Your task to perform on an android device: Search for Mexican restaurants on Maps Image 0: 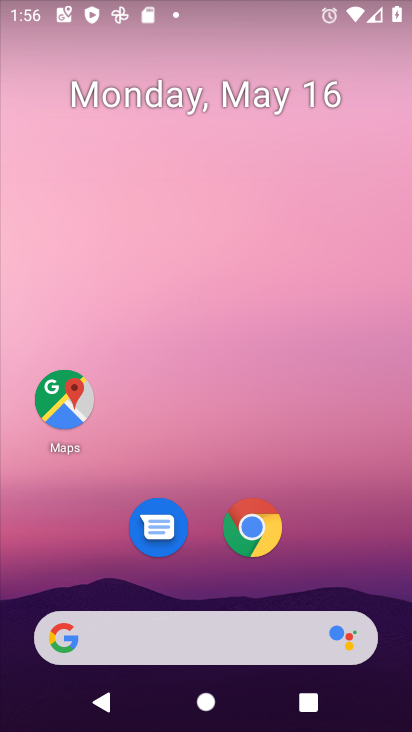
Step 0: click (48, 416)
Your task to perform on an android device: Search for Mexican restaurants on Maps Image 1: 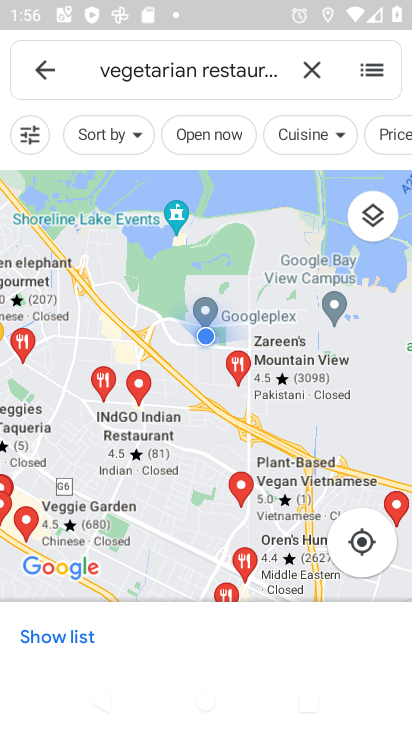
Step 1: click (315, 71)
Your task to perform on an android device: Search for Mexican restaurants on Maps Image 2: 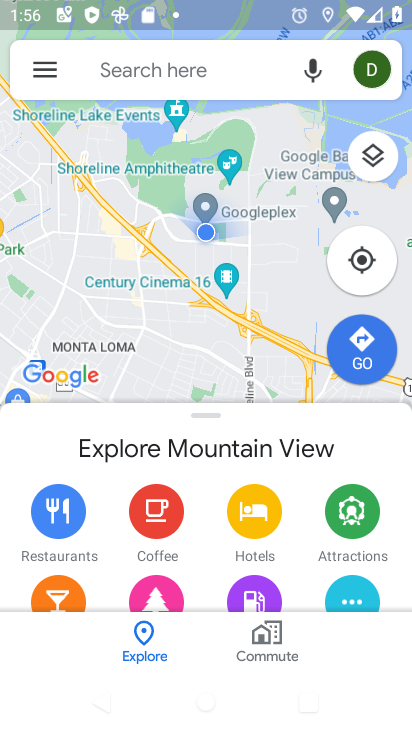
Step 2: click (254, 67)
Your task to perform on an android device: Search for Mexican restaurants on Maps Image 3: 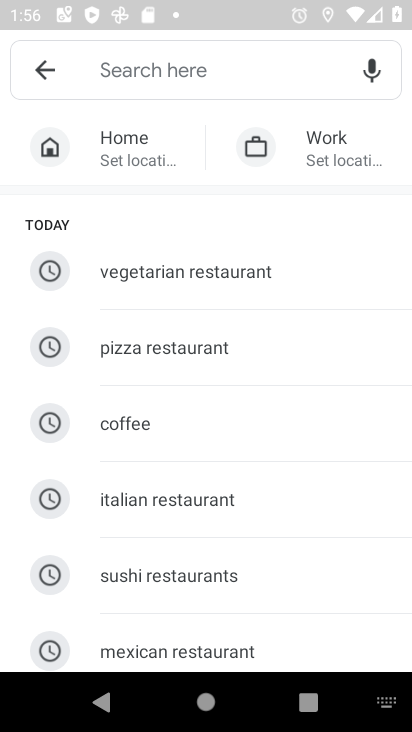
Step 3: click (198, 647)
Your task to perform on an android device: Search for Mexican restaurants on Maps Image 4: 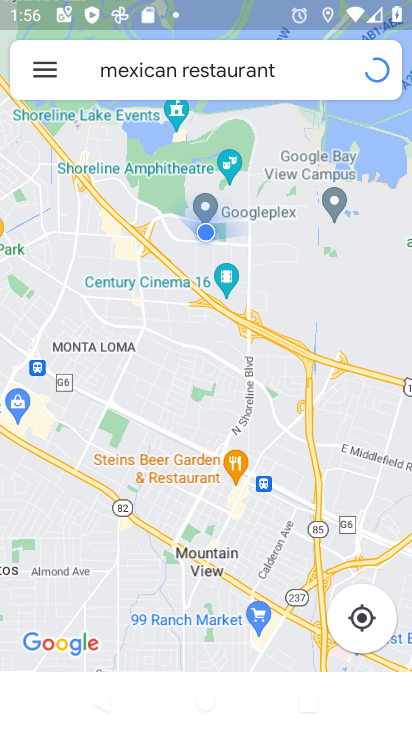
Step 4: task complete